Your task to perform on an android device: What's the weather today? Image 0: 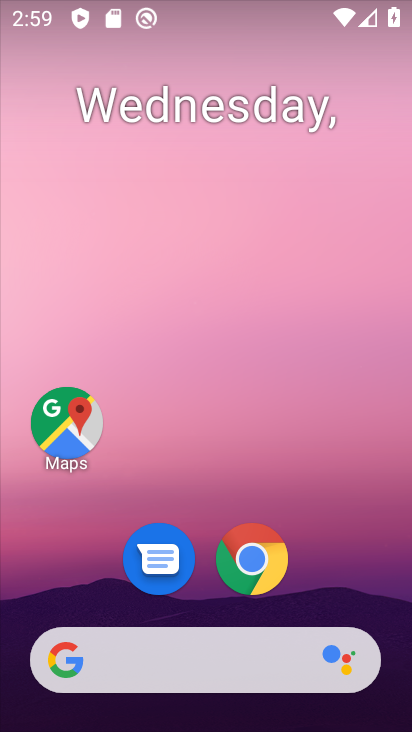
Step 0: drag from (356, 533) to (331, 113)
Your task to perform on an android device: What's the weather today? Image 1: 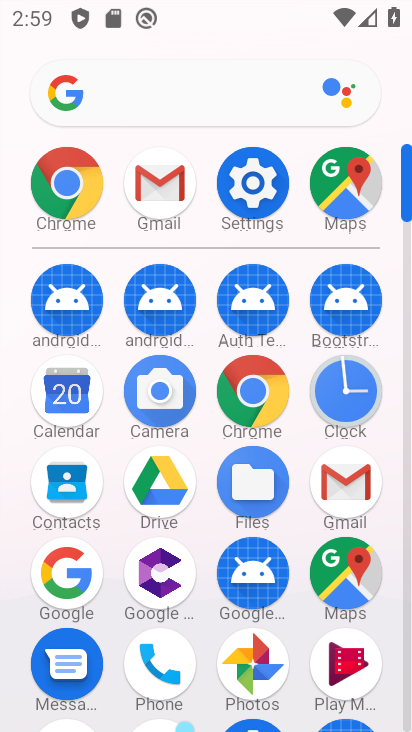
Step 1: click (273, 398)
Your task to perform on an android device: What's the weather today? Image 2: 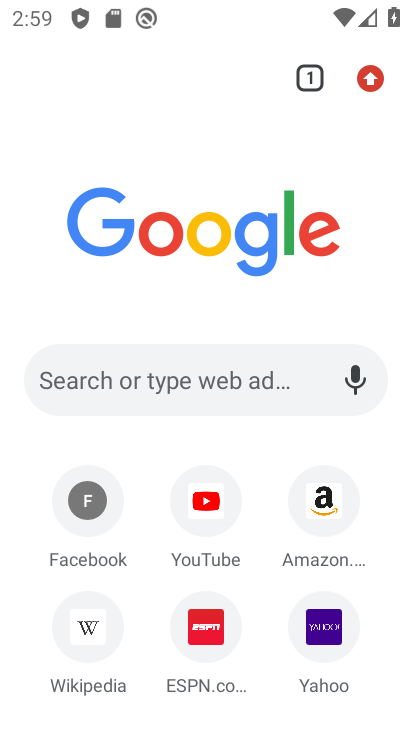
Step 2: click (269, 375)
Your task to perform on an android device: What's the weather today? Image 3: 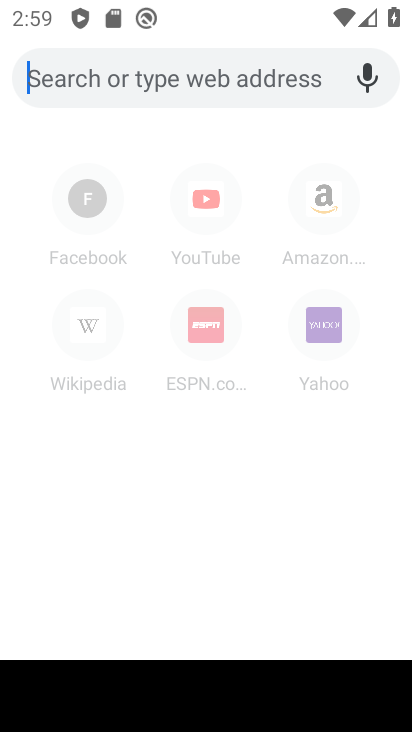
Step 3: type "what's the weather today"
Your task to perform on an android device: What's the weather today? Image 4: 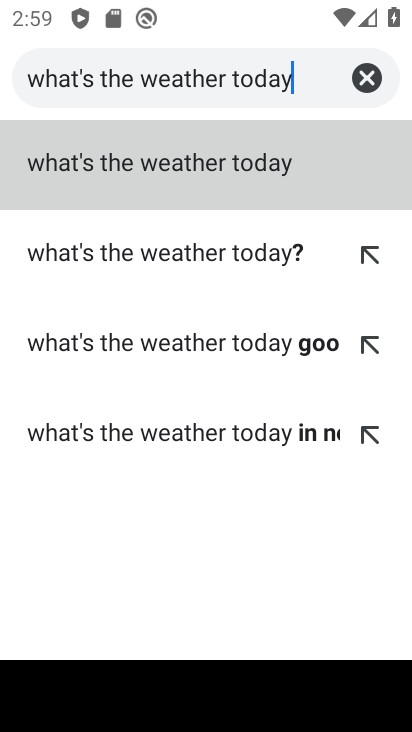
Step 4: click (197, 175)
Your task to perform on an android device: What's the weather today? Image 5: 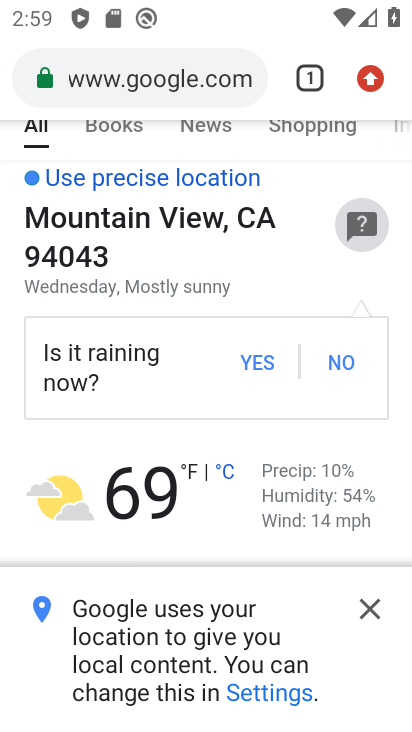
Step 5: task complete